Your task to perform on an android device: empty trash in the gmail app Image 0: 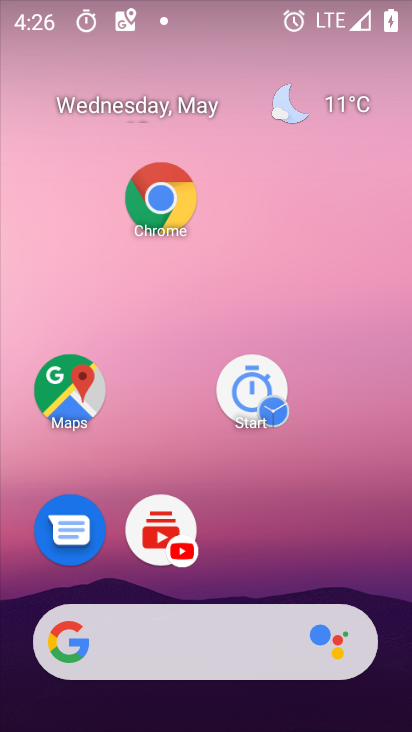
Step 0: drag from (315, 625) to (187, 104)
Your task to perform on an android device: empty trash in the gmail app Image 1: 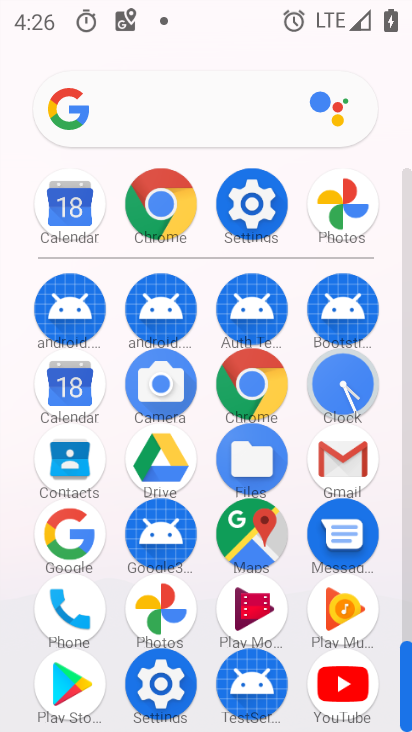
Step 1: click (362, 454)
Your task to perform on an android device: empty trash in the gmail app Image 2: 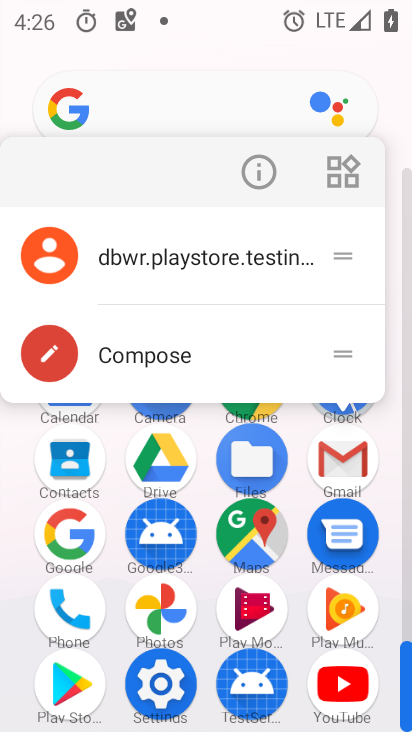
Step 2: click (317, 475)
Your task to perform on an android device: empty trash in the gmail app Image 3: 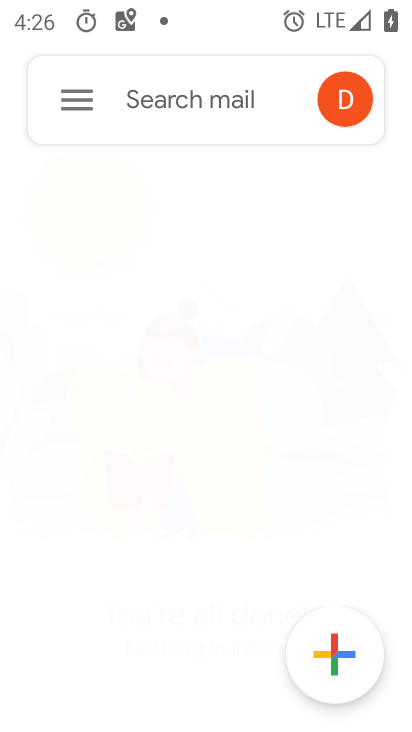
Step 3: click (332, 472)
Your task to perform on an android device: empty trash in the gmail app Image 4: 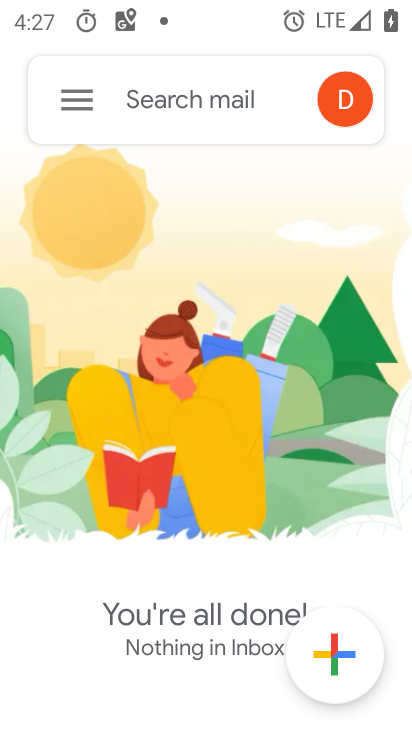
Step 4: click (73, 102)
Your task to perform on an android device: empty trash in the gmail app Image 5: 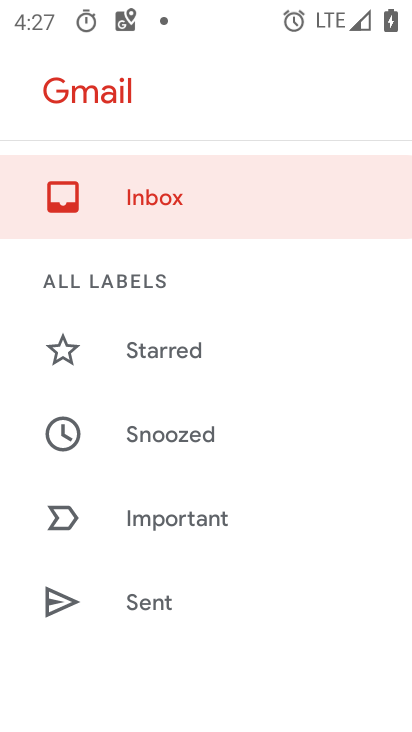
Step 5: drag from (210, 565) to (216, 210)
Your task to perform on an android device: empty trash in the gmail app Image 6: 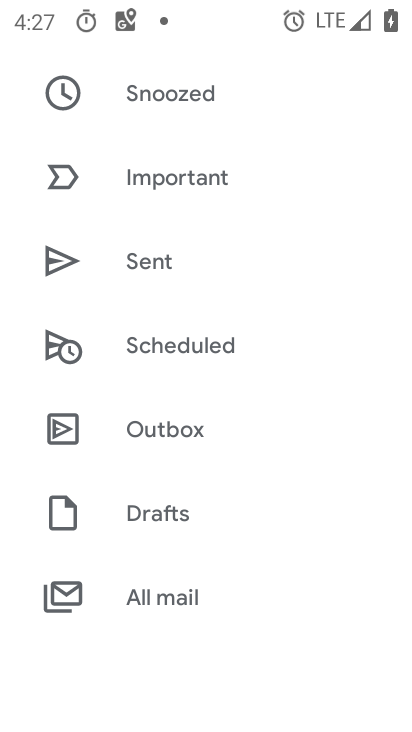
Step 6: drag from (243, 499) to (226, 160)
Your task to perform on an android device: empty trash in the gmail app Image 7: 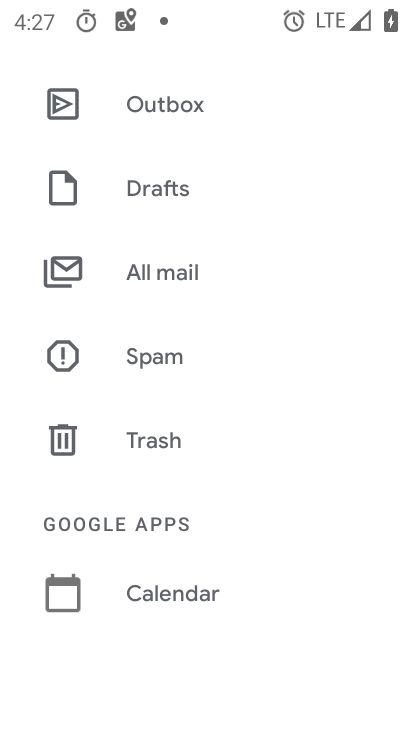
Step 7: drag from (235, 448) to (227, 137)
Your task to perform on an android device: empty trash in the gmail app Image 8: 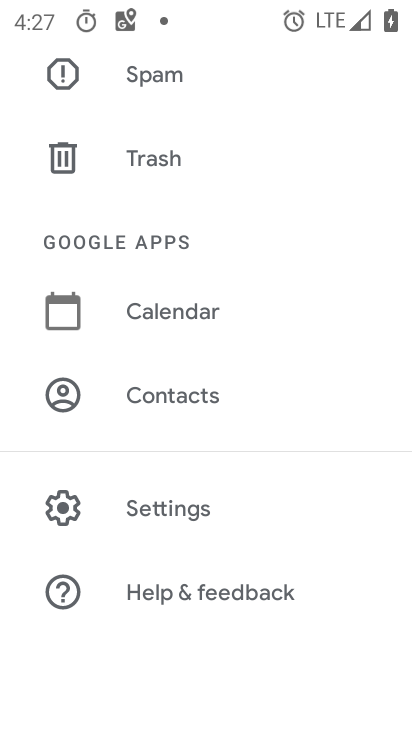
Step 8: click (149, 127)
Your task to perform on an android device: empty trash in the gmail app Image 9: 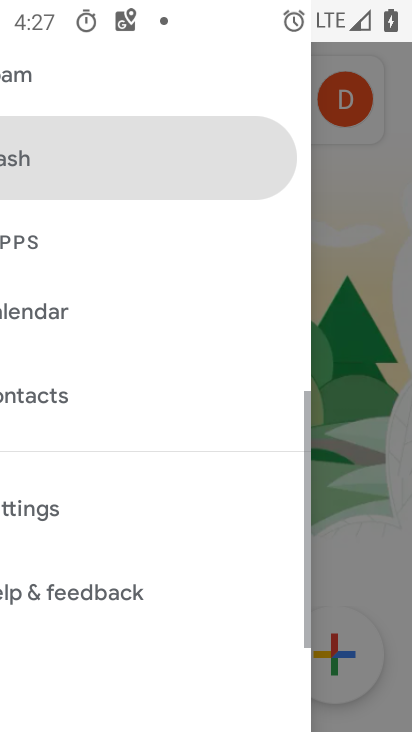
Step 9: click (149, 152)
Your task to perform on an android device: empty trash in the gmail app Image 10: 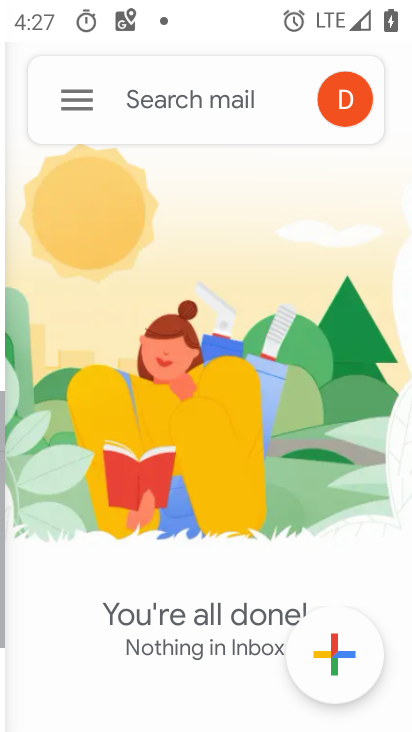
Step 10: click (149, 152)
Your task to perform on an android device: empty trash in the gmail app Image 11: 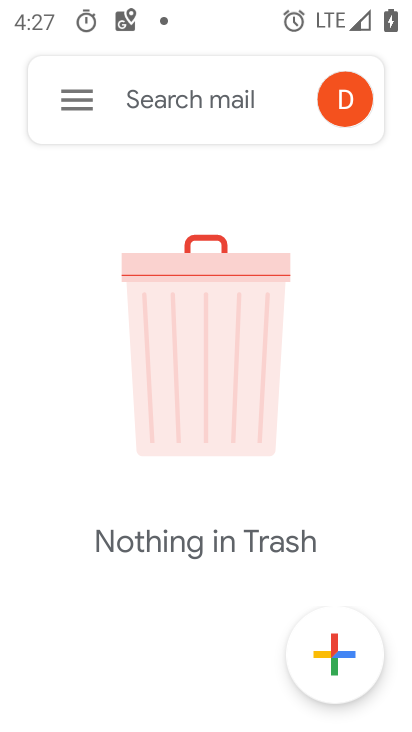
Step 11: task complete